Your task to perform on an android device: Turn off the flashlight Image 0: 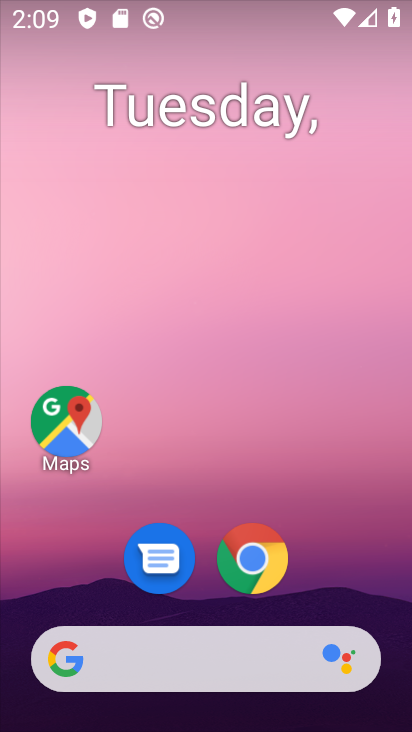
Step 0: drag from (319, 32) to (311, 731)
Your task to perform on an android device: Turn off the flashlight Image 1: 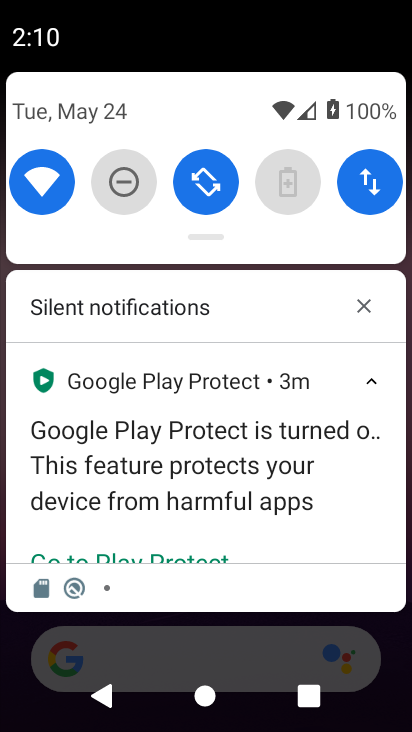
Step 1: task complete